Your task to perform on an android device: Open Chrome and go to the settings page Image 0: 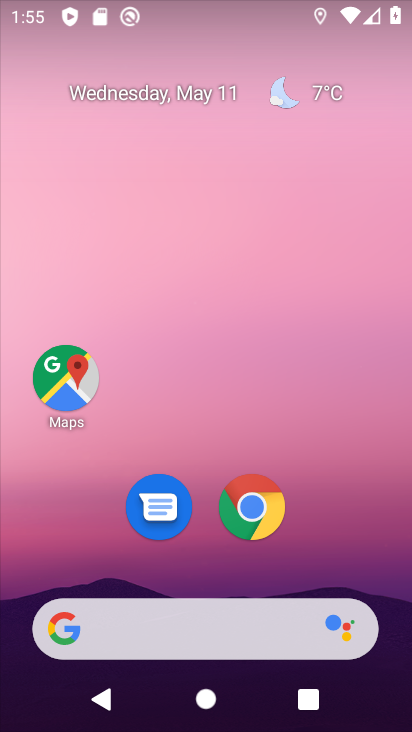
Step 0: drag from (341, 518) to (329, 9)
Your task to perform on an android device: Open Chrome and go to the settings page Image 1: 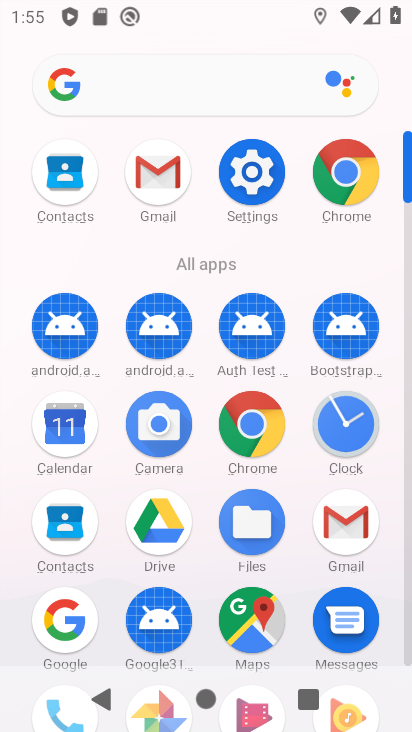
Step 1: click (250, 422)
Your task to perform on an android device: Open Chrome and go to the settings page Image 2: 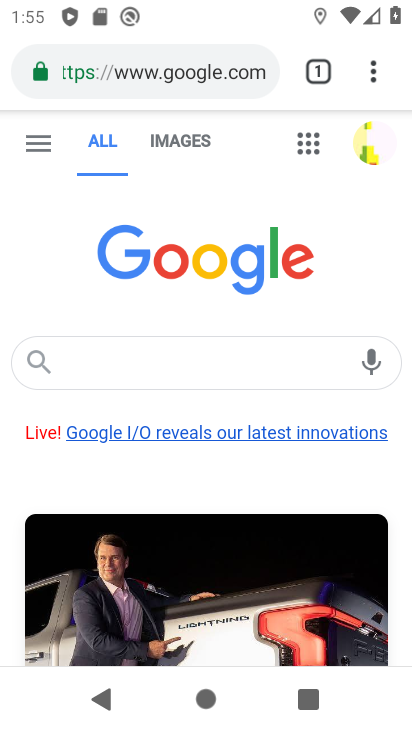
Step 2: task complete